Your task to perform on an android device: Open Chrome and go to settings Image 0: 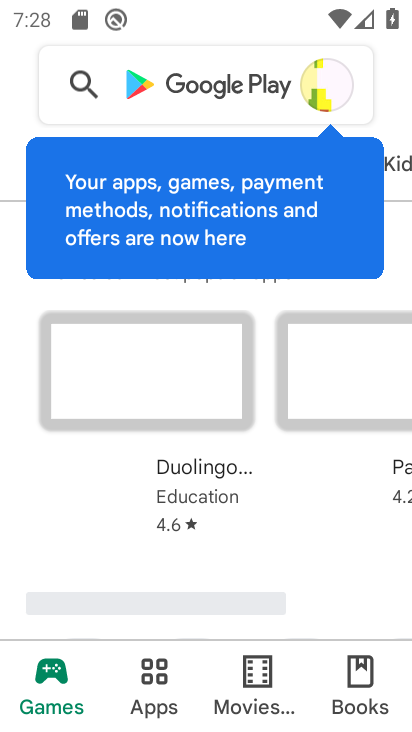
Step 0: press home button
Your task to perform on an android device: Open Chrome and go to settings Image 1: 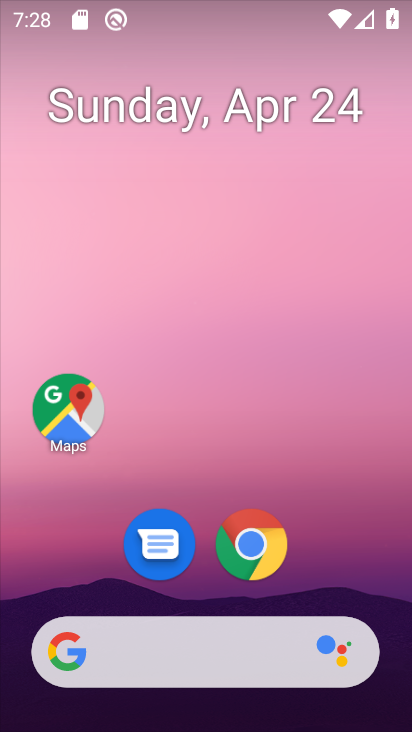
Step 1: drag from (179, 660) to (365, 119)
Your task to perform on an android device: Open Chrome and go to settings Image 2: 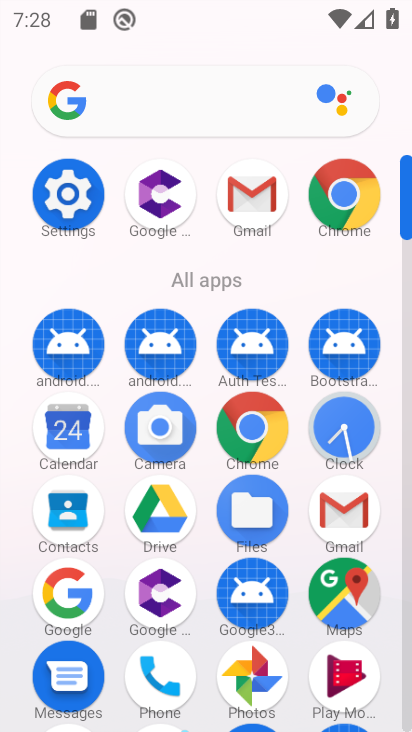
Step 2: click (340, 207)
Your task to perform on an android device: Open Chrome and go to settings Image 3: 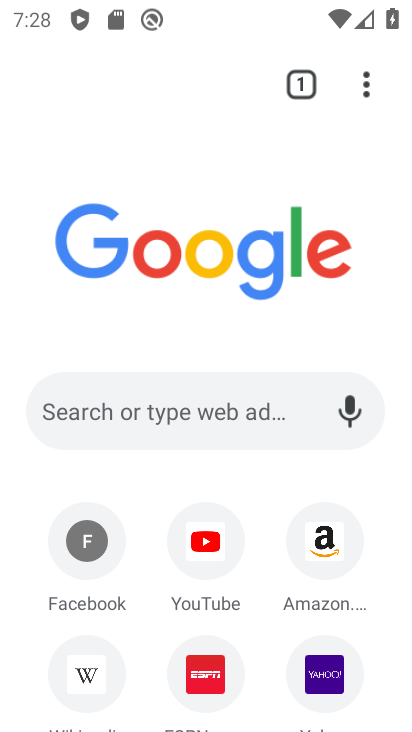
Step 3: task complete